Your task to perform on an android device: Go to Maps Image 0: 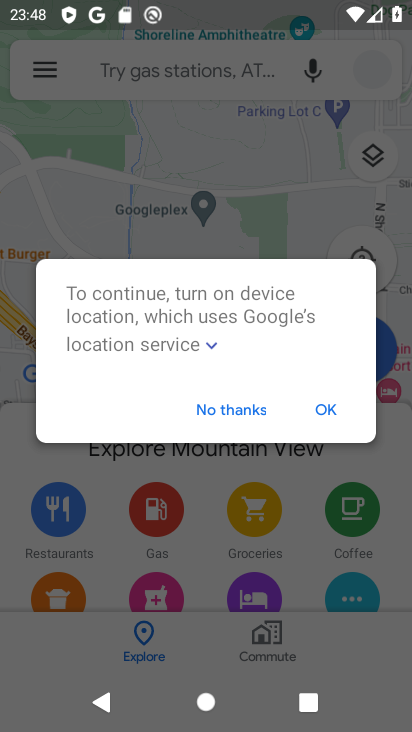
Step 0: click (244, 414)
Your task to perform on an android device: Go to Maps Image 1: 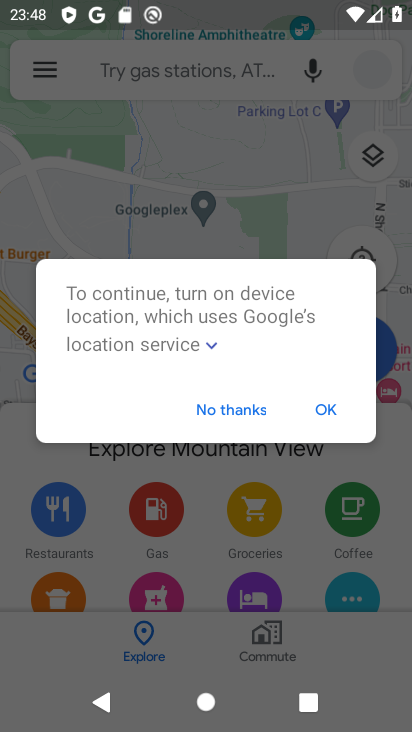
Step 1: click (251, 404)
Your task to perform on an android device: Go to Maps Image 2: 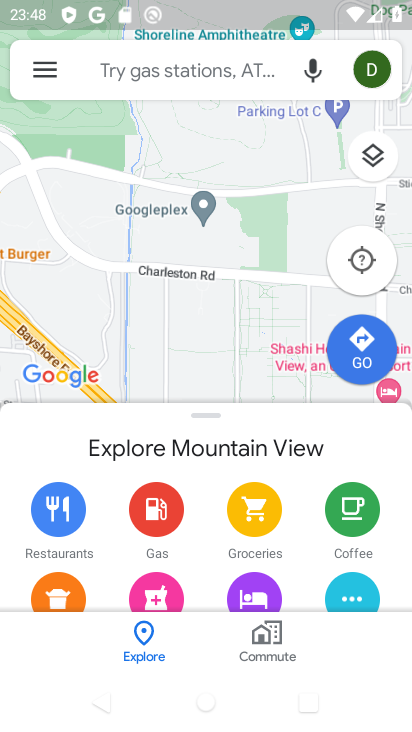
Step 2: task complete